Your task to perform on an android device: open app "Gmail" Image 0: 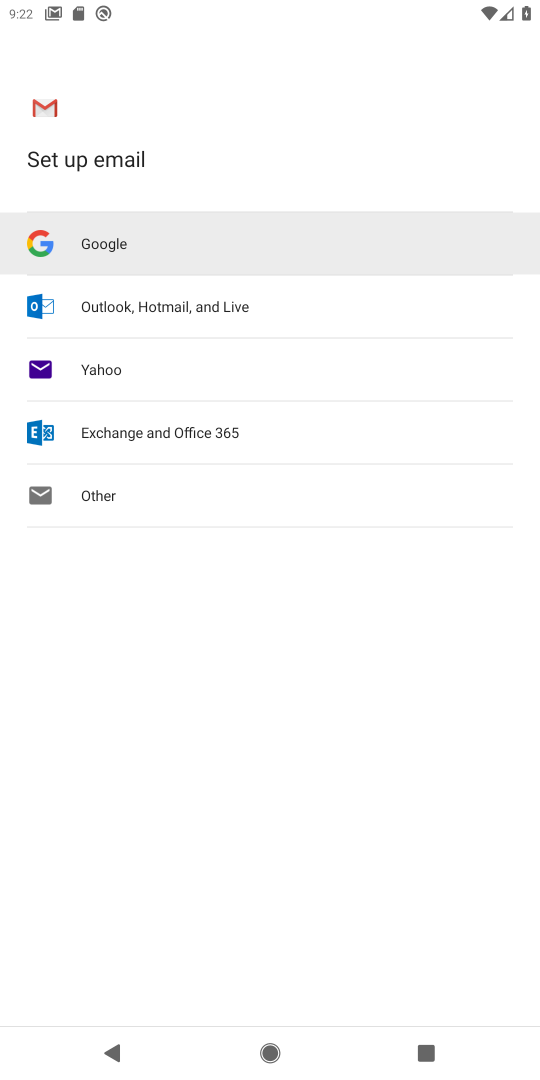
Step 0: press home button
Your task to perform on an android device: open app "Gmail" Image 1: 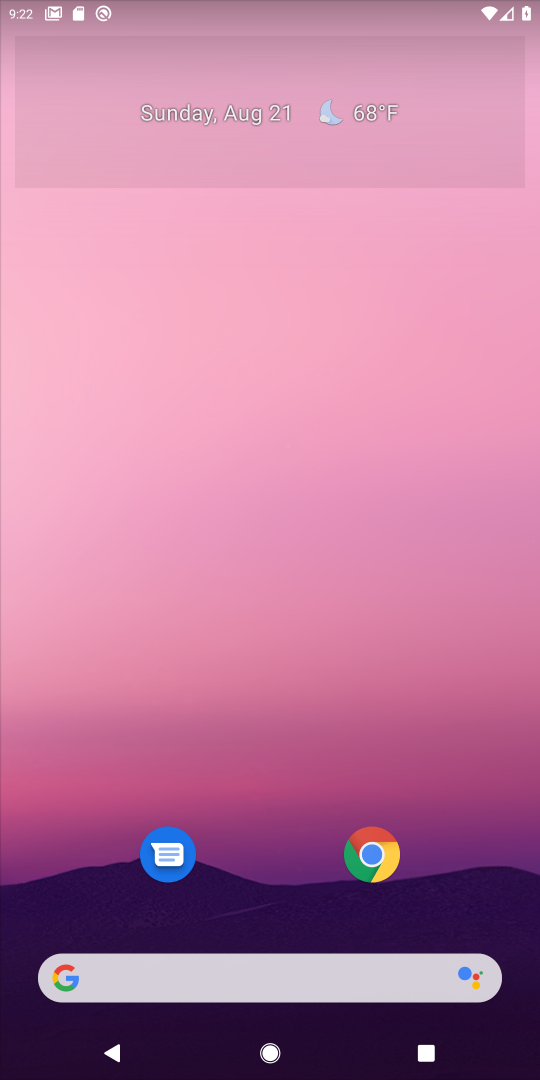
Step 1: drag from (315, 933) to (230, 304)
Your task to perform on an android device: open app "Gmail" Image 2: 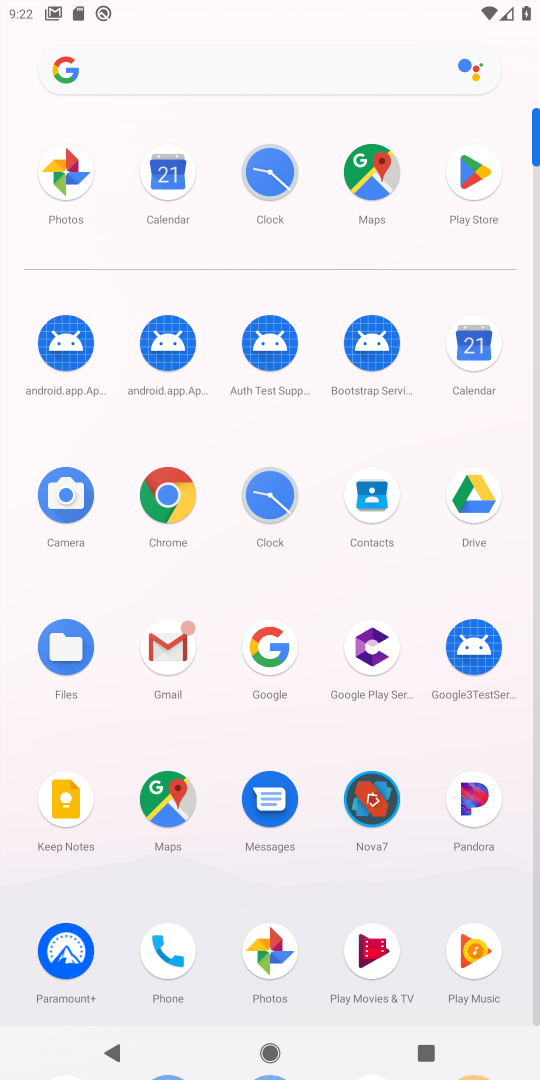
Step 2: click (162, 672)
Your task to perform on an android device: open app "Gmail" Image 3: 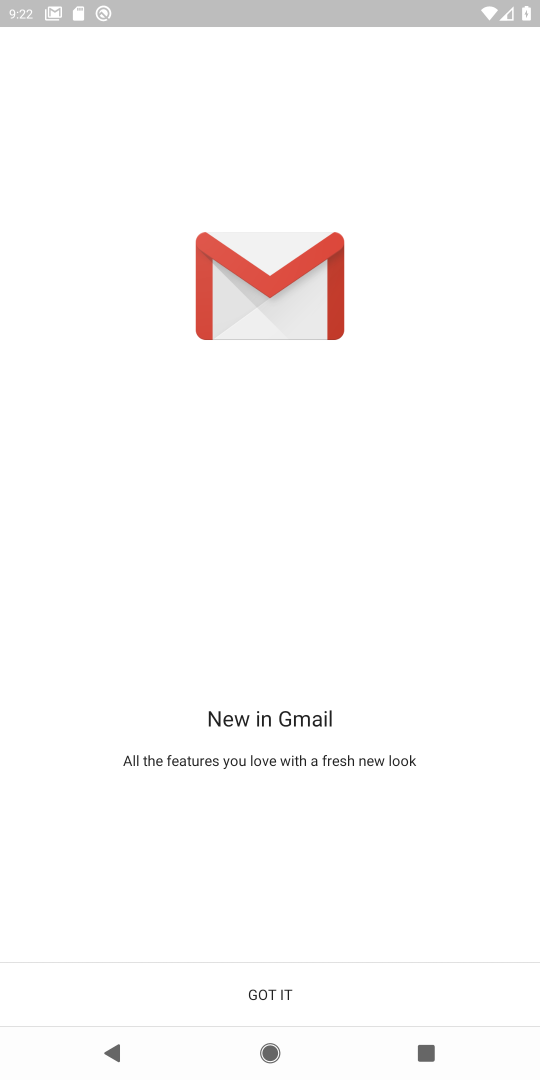
Step 3: click (226, 998)
Your task to perform on an android device: open app "Gmail" Image 4: 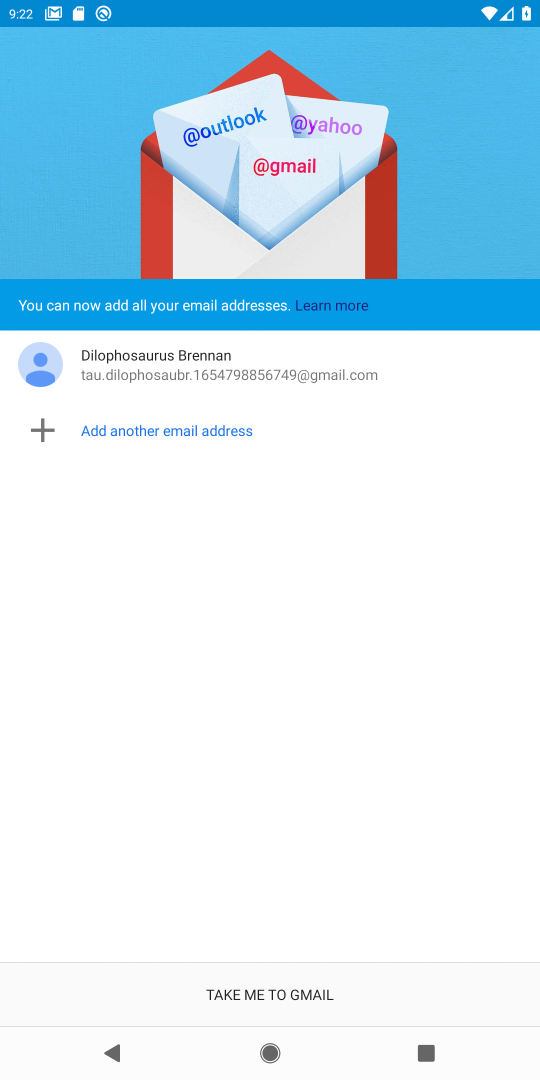
Step 4: click (226, 998)
Your task to perform on an android device: open app "Gmail" Image 5: 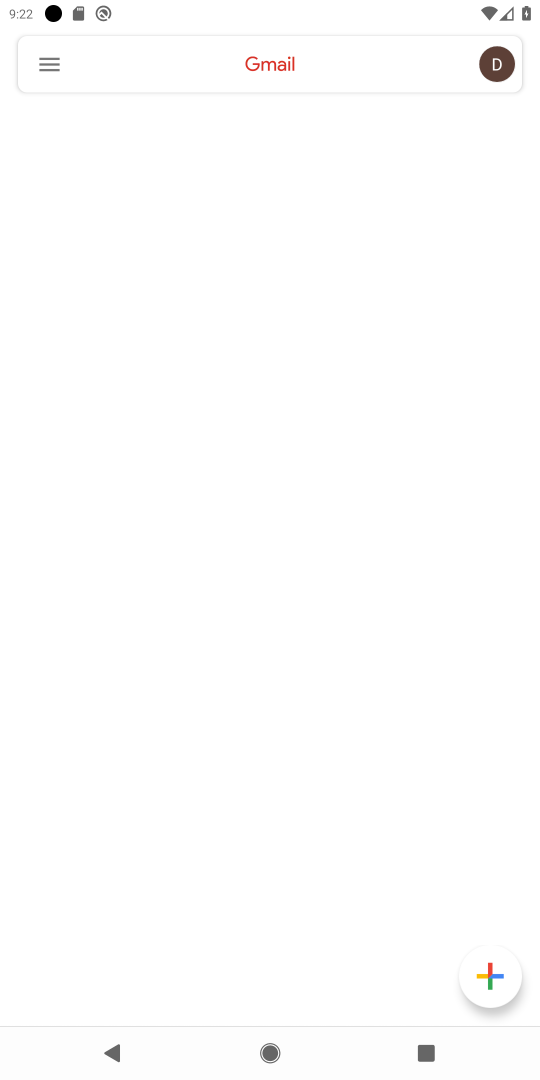
Step 5: task complete